Your task to perform on an android device: Go to notification settings Image 0: 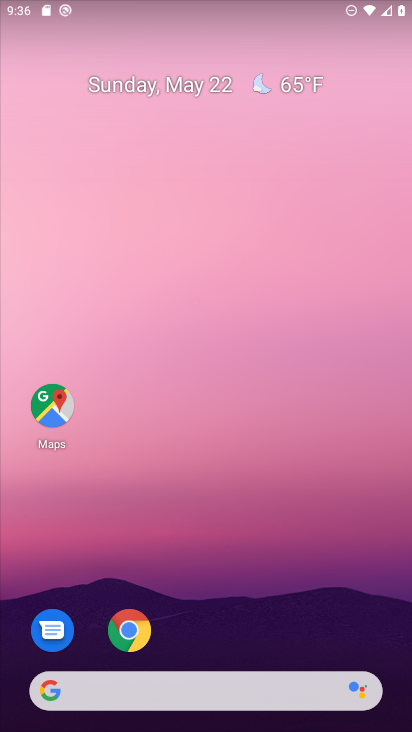
Step 0: press home button
Your task to perform on an android device: Go to notification settings Image 1: 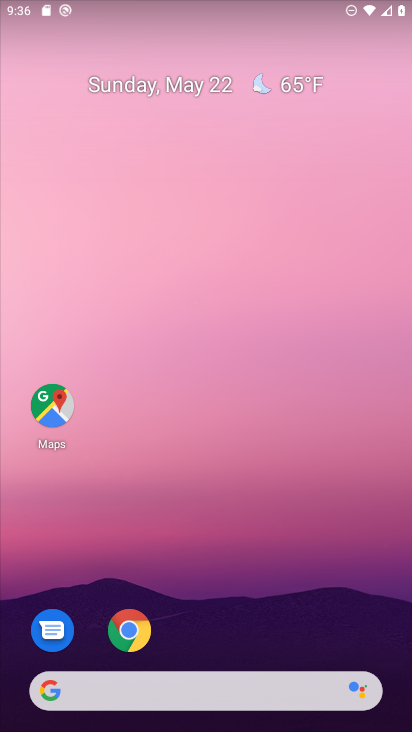
Step 1: drag from (156, 678) to (257, 245)
Your task to perform on an android device: Go to notification settings Image 2: 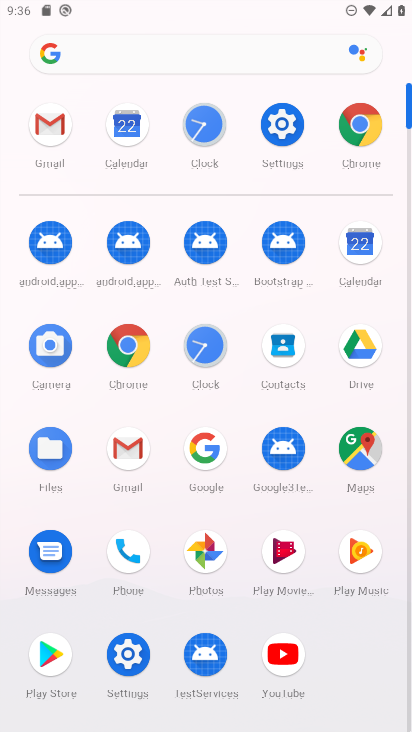
Step 2: click (278, 129)
Your task to perform on an android device: Go to notification settings Image 3: 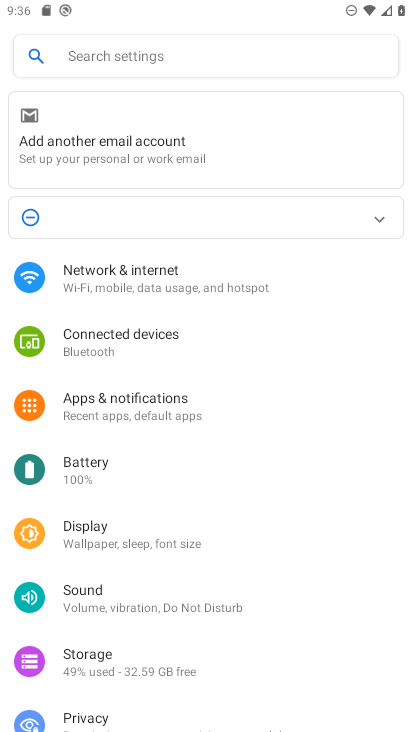
Step 3: click (166, 406)
Your task to perform on an android device: Go to notification settings Image 4: 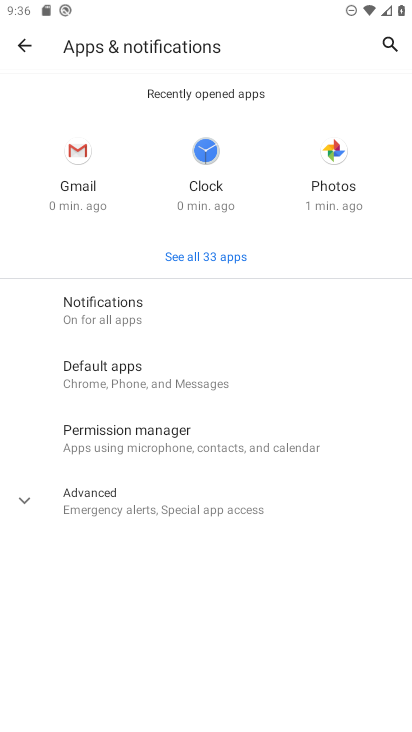
Step 4: click (112, 318)
Your task to perform on an android device: Go to notification settings Image 5: 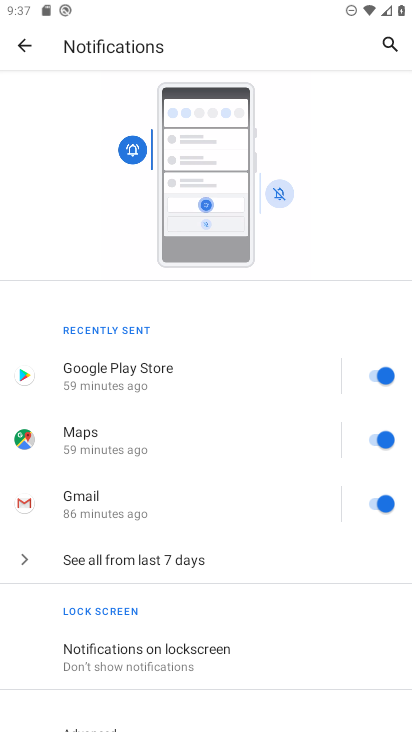
Step 5: task complete